Your task to perform on an android device: turn off airplane mode Image 0: 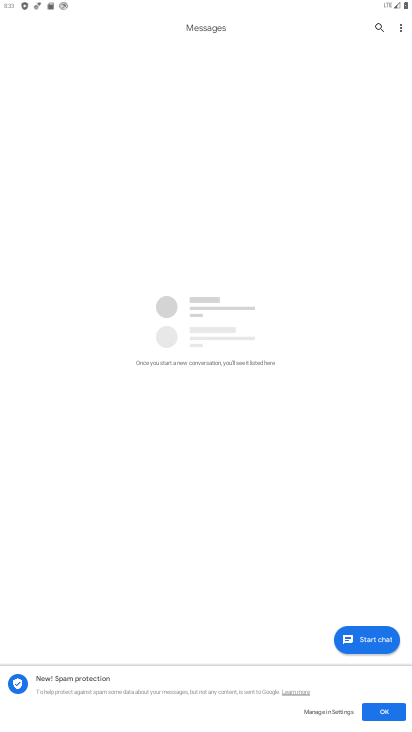
Step 0: drag from (321, 6) to (314, 153)
Your task to perform on an android device: turn off airplane mode Image 1: 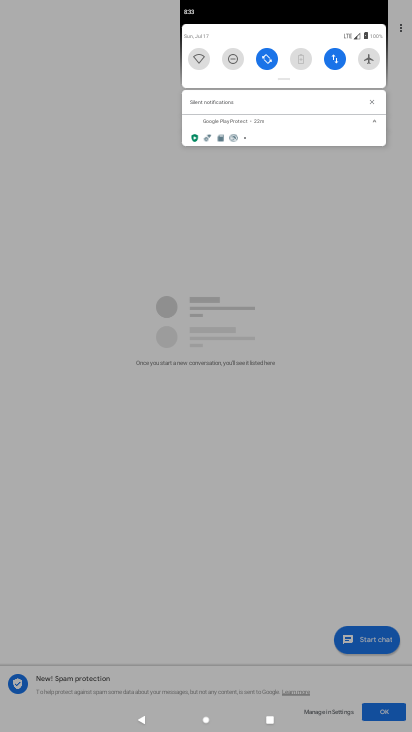
Step 1: task complete